Your task to perform on an android device: What's on my calendar today? Image 0: 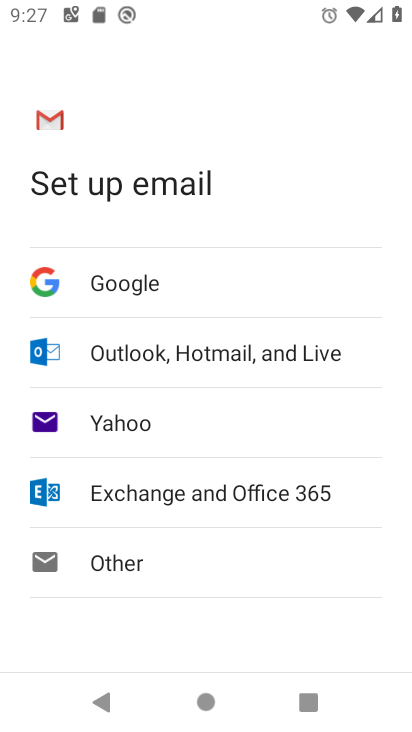
Step 0: press home button
Your task to perform on an android device: What's on my calendar today? Image 1: 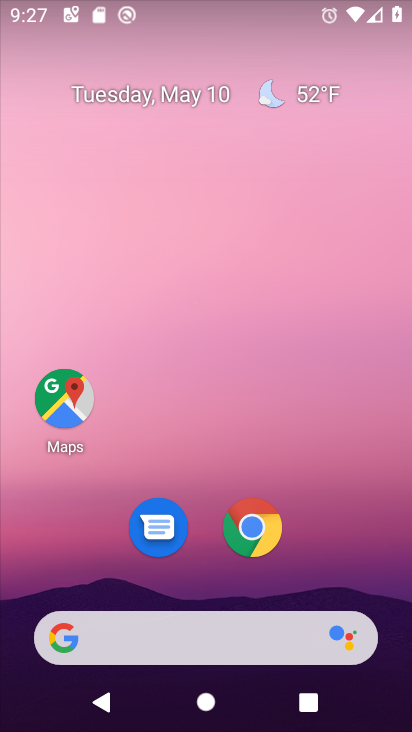
Step 1: drag from (330, 572) to (103, 148)
Your task to perform on an android device: What's on my calendar today? Image 2: 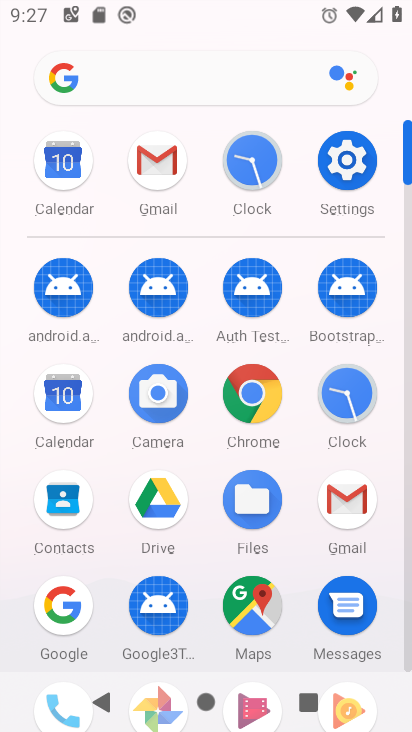
Step 2: click (85, 161)
Your task to perform on an android device: What's on my calendar today? Image 3: 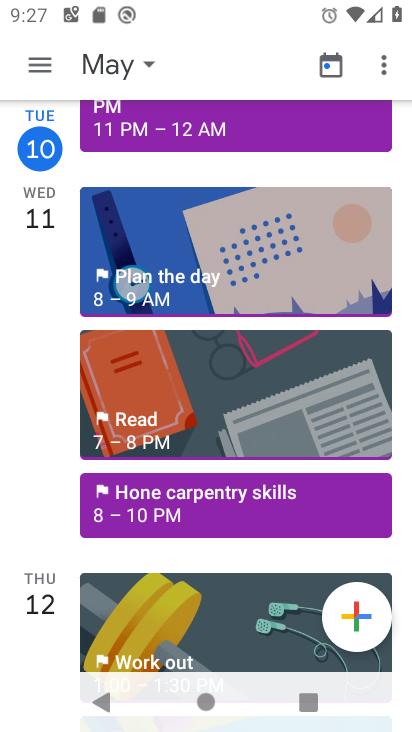
Step 3: task complete